Your task to perform on an android device: turn on airplane mode Image 0: 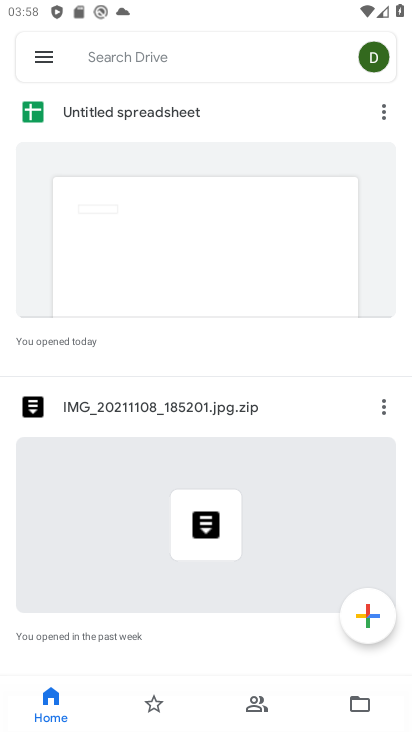
Step 0: press home button
Your task to perform on an android device: turn on airplane mode Image 1: 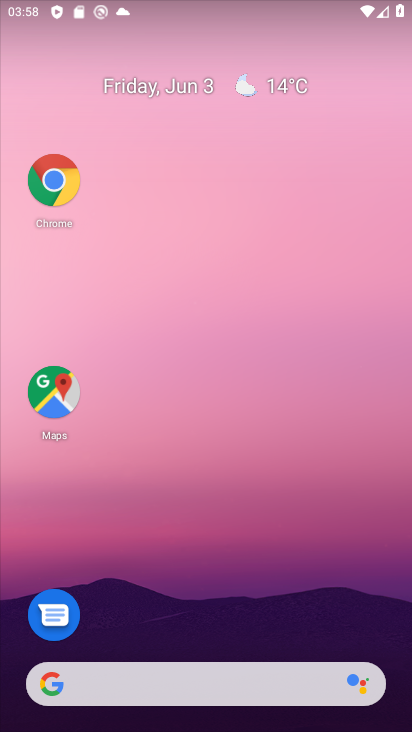
Step 1: drag from (265, 13) to (283, 644)
Your task to perform on an android device: turn on airplane mode Image 2: 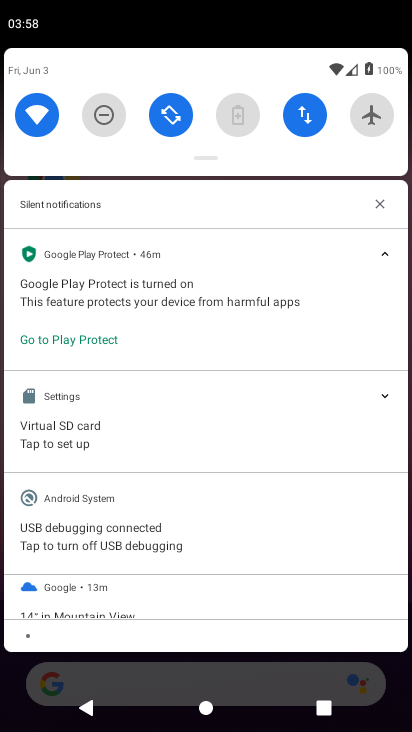
Step 2: click (374, 136)
Your task to perform on an android device: turn on airplane mode Image 3: 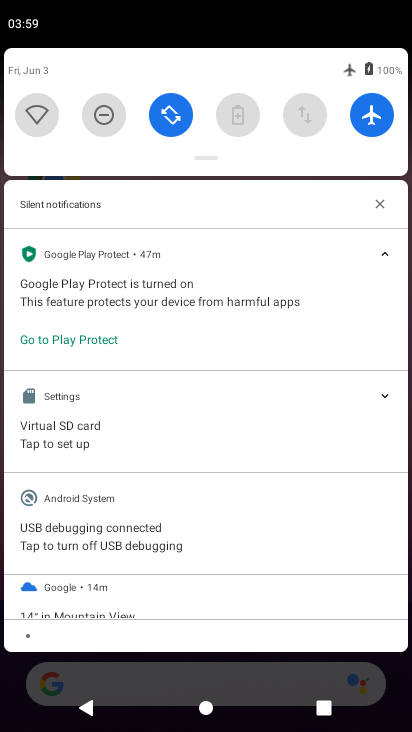
Step 3: task complete